Your task to perform on an android device: set the stopwatch Image 0: 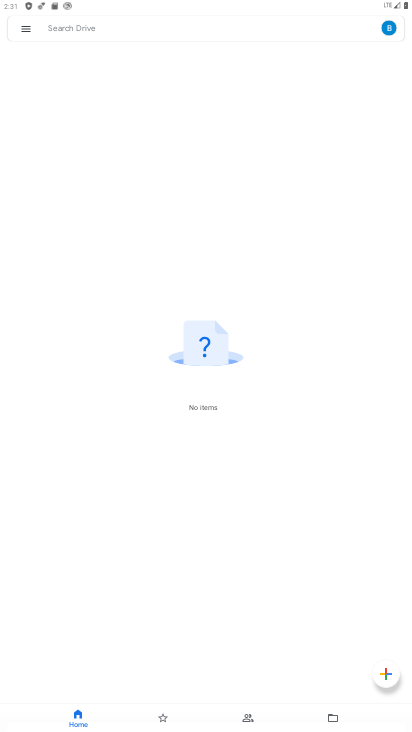
Step 0: press home button
Your task to perform on an android device: set the stopwatch Image 1: 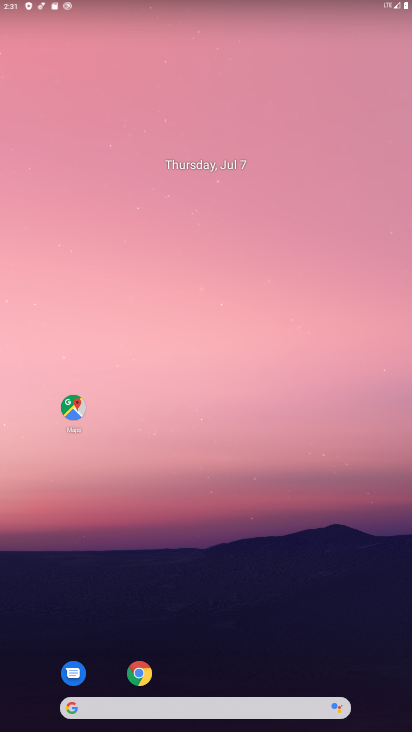
Step 1: drag from (227, 603) to (213, 53)
Your task to perform on an android device: set the stopwatch Image 2: 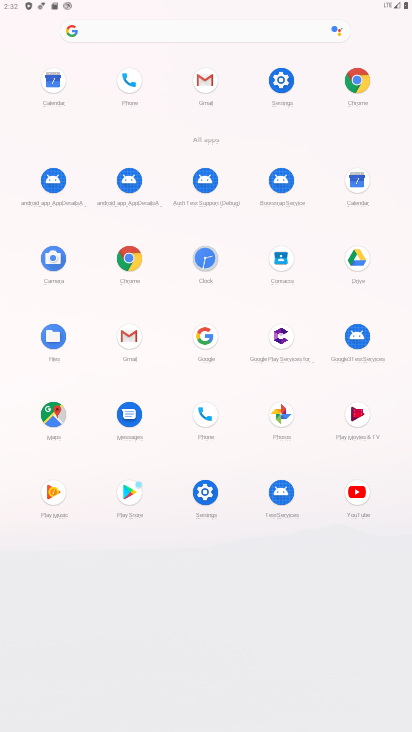
Step 2: click (203, 259)
Your task to perform on an android device: set the stopwatch Image 3: 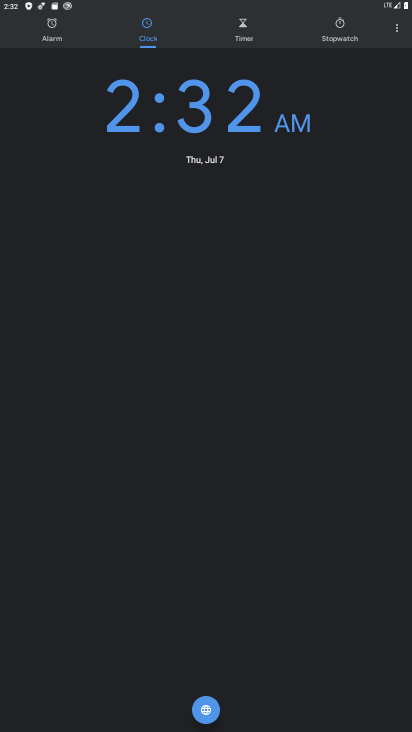
Step 3: click (342, 37)
Your task to perform on an android device: set the stopwatch Image 4: 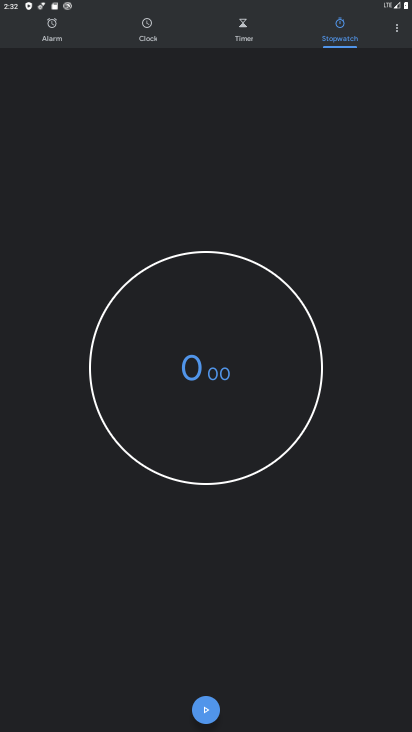
Step 4: click (204, 699)
Your task to perform on an android device: set the stopwatch Image 5: 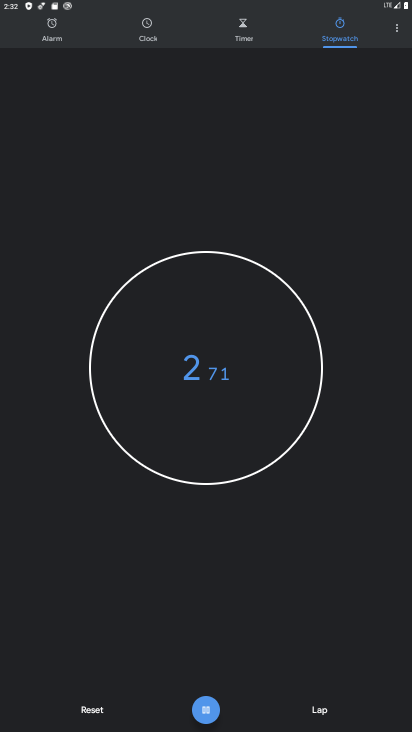
Step 5: task complete